Your task to perform on an android device: Empty the shopping cart on target.com. Add "razer naga" to the cart on target.com Image 0: 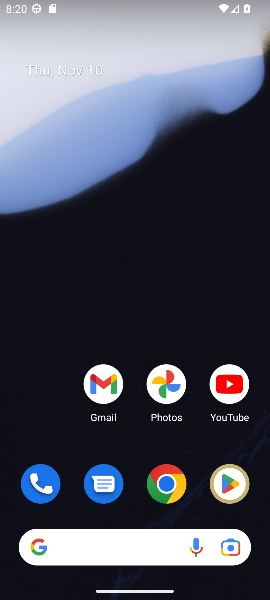
Step 0: click (165, 491)
Your task to perform on an android device: Empty the shopping cart on target.com. Add "razer naga" to the cart on target.com Image 1: 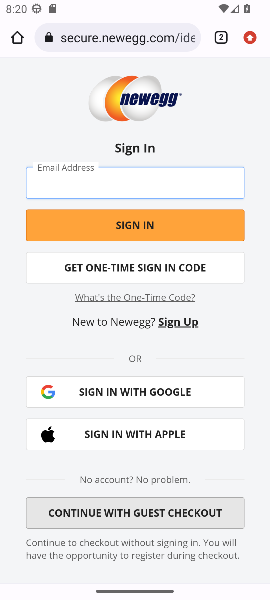
Step 1: click (123, 39)
Your task to perform on an android device: Empty the shopping cart on target.com. Add "razer naga" to the cart on target.com Image 2: 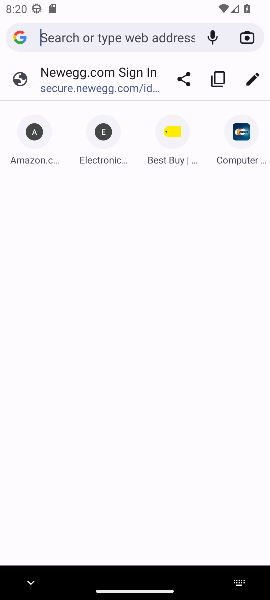
Step 2: type "target.com"
Your task to perform on an android device: Empty the shopping cart on target.com. Add "razer naga" to the cart on target.com Image 3: 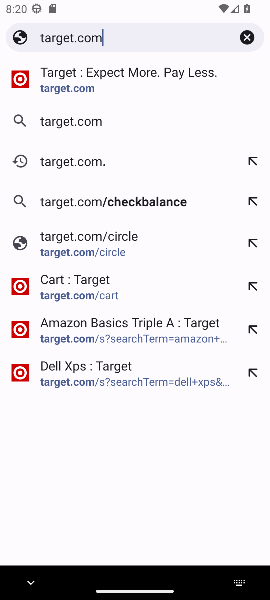
Step 3: click (75, 88)
Your task to perform on an android device: Empty the shopping cart on target.com. Add "razer naga" to the cart on target.com Image 4: 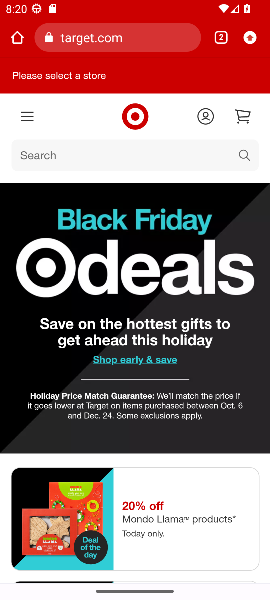
Step 4: click (242, 117)
Your task to perform on an android device: Empty the shopping cart on target.com. Add "razer naga" to the cart on target.com Image 5: 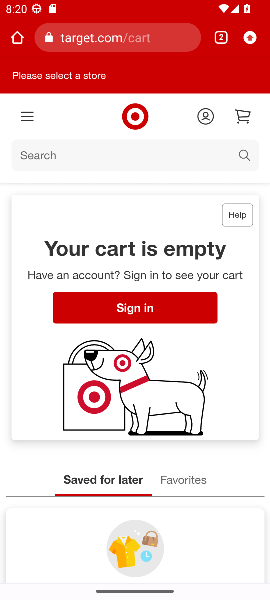
Step 5: click (248, 151)
Your task to perform on an android device: Empty the shopping cart on target.com. Add "razer naga" to the cart on target.com Image 6: 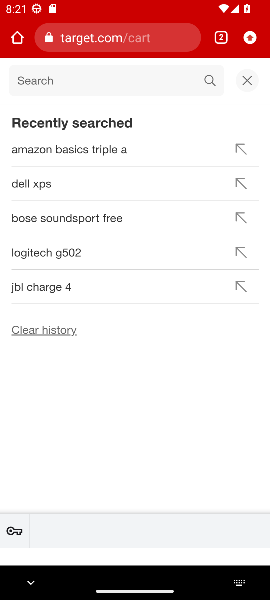
Step 6: type "beats solo 3"
Your task to perform on an android device: Empty the shopping cart on target.com. Add "razer naga" to the cart on target.com Image 7: 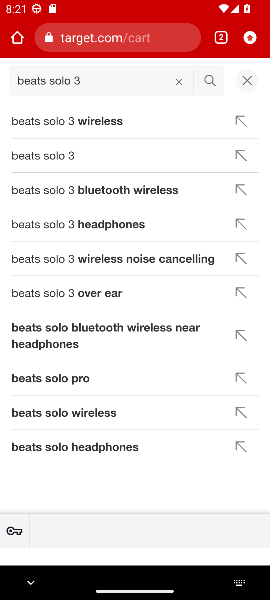
Step 7: click (178, 82)
Your task to perform on an android device: Empty the shopping cart on target.com. Add "razer naga" to the cart on target.com Image 8: 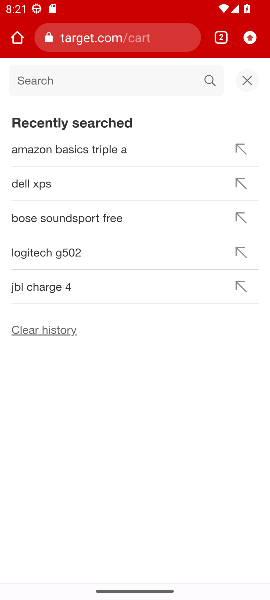
Step 8: type "razer naga"
Your task to perform on an android device: Empty the shopping cart on target.com. Add "razer naga" to the cart on target.com Image 9: 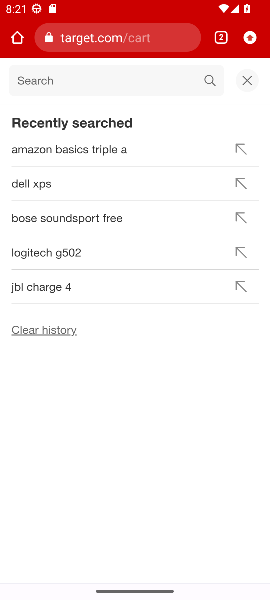
Step 9: click (71, 81)
Your task to perform on an android device: Empty the shopping cart on target.com. Add "razer naga" to the cart on target.com Image 10: 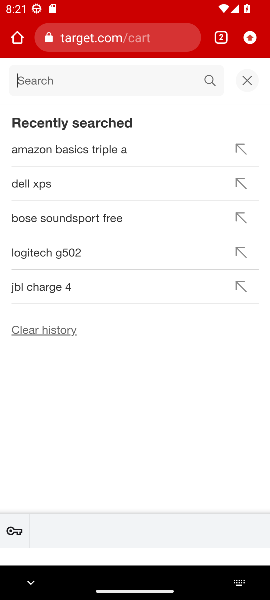
Step 10: type "razer naga"
Your task to perform on an android device: Empty the shopping cart on target.com. Add "razer naga" to the cart on target.com Image 11: 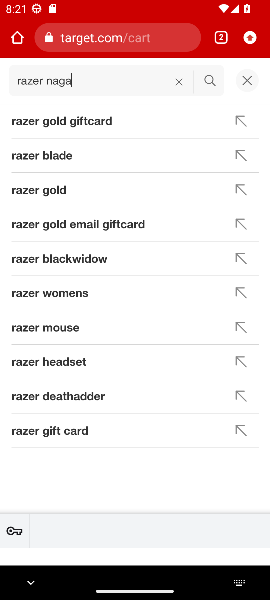
Step 11: click (215, 78)
Your task to perform on an android device: Empty the shopping cart on target.com. Add "razer naga" to the cart on target.com Image 12: 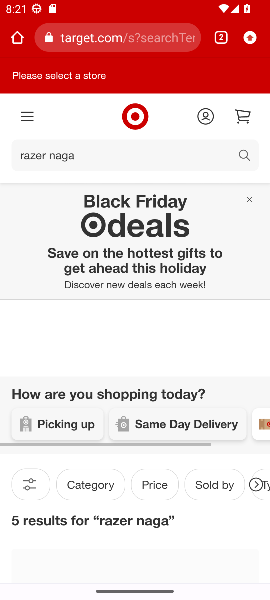
Step 12: task complete